Your task to perform on an android device: Show me popular games on the Play Store Image 0: 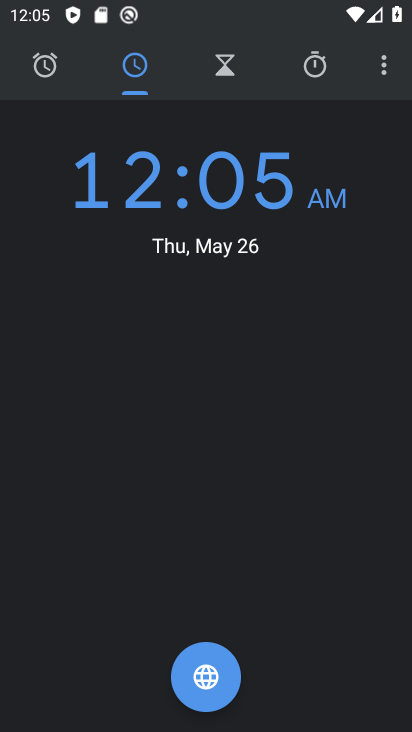
Step 0: press home button
Your task to perform on an android device: Show me popular games on the Play Store Image 1: 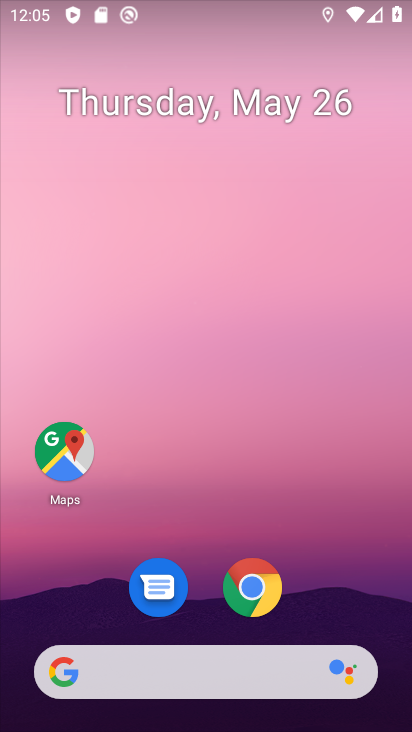
Step 1: drag from (362, 579) to (356, 112)
Your task to perform on an android device: Show me popular games on the Play Store Image 2: 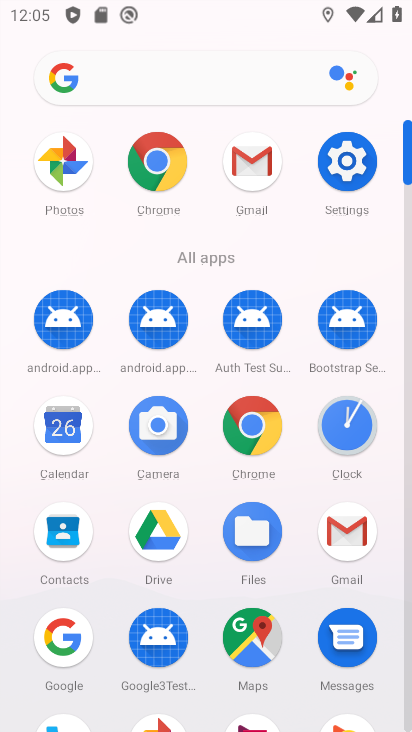
Step 2: drag from (297, 596) to (289, 331)
Your task to perform on an android device: Show me popular games on the Play Store Image 3: 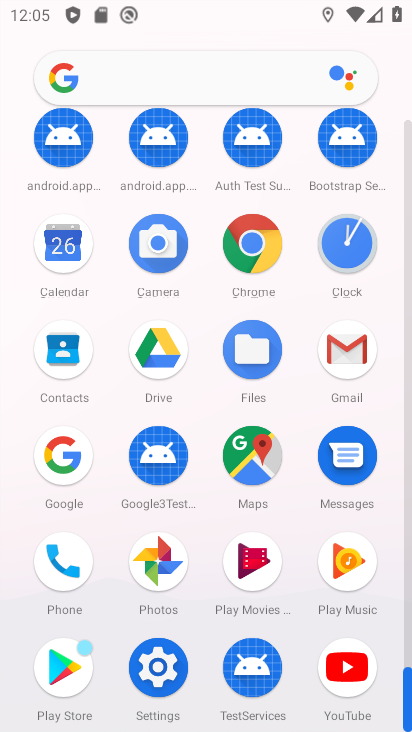
Step 3: click (66, 685)
Your task to perform on an android device: Show me popular games on the Play Store Image 4: 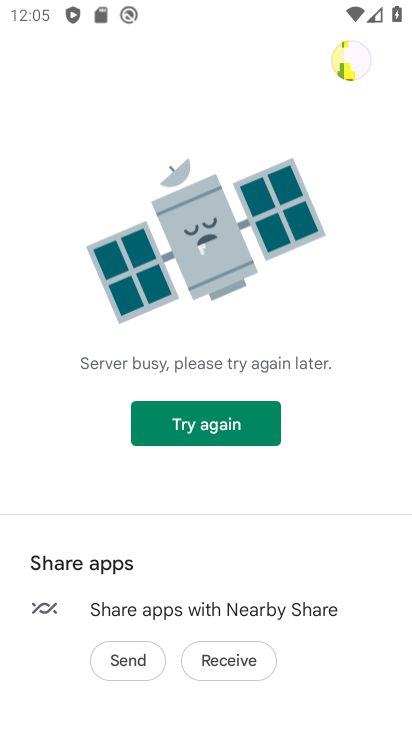
Step 4: task complete